Your task to perform on an android device: make emails show in primary in the gmail app Image 0: 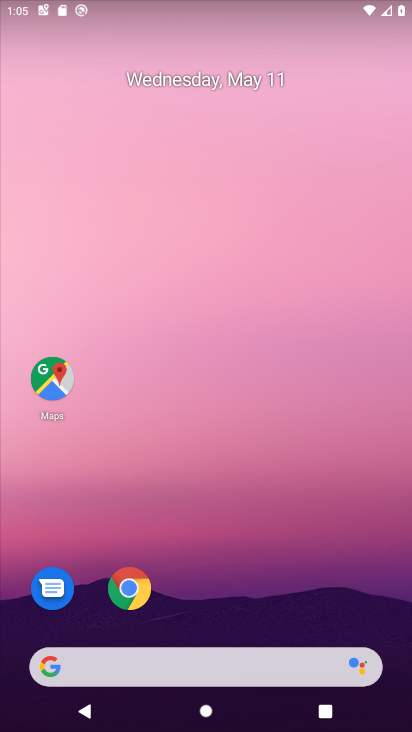
Step 0: press home button
Your task to perform on an android device: make emails show in primary in the gmail app Image 1: 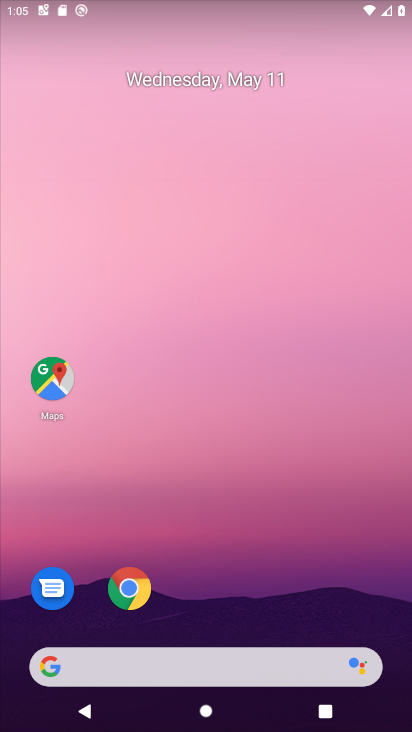
Step 1: drag from (184, 653) to (226, 404)
Your task to perform on an android device: make emails show in primary in the gmail app Image 2: 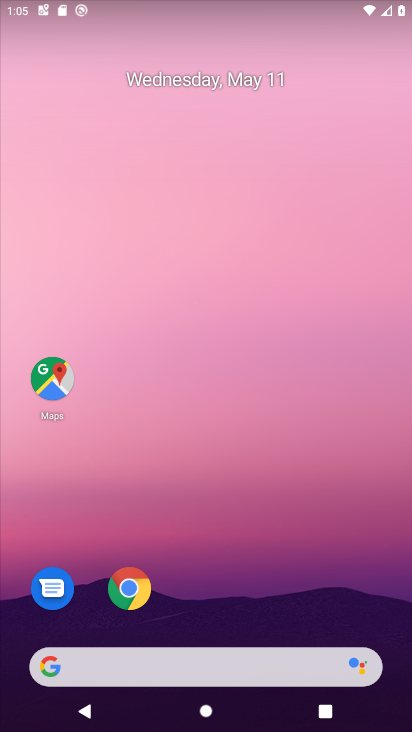
Step 2: drag from (264, 569) to (303, 254)
Your task to perform on an android device: make emails show in primary in the gmail app Image 3: 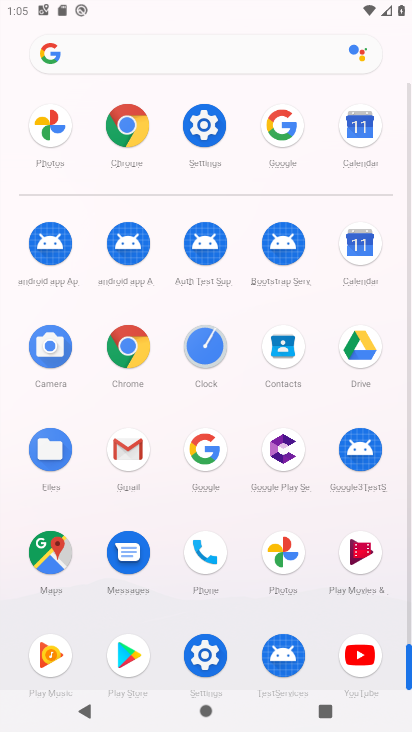
Step 3: click (128, 450)
Your task to perform on an android device: make emails show in primary in the gmail app Image 4: 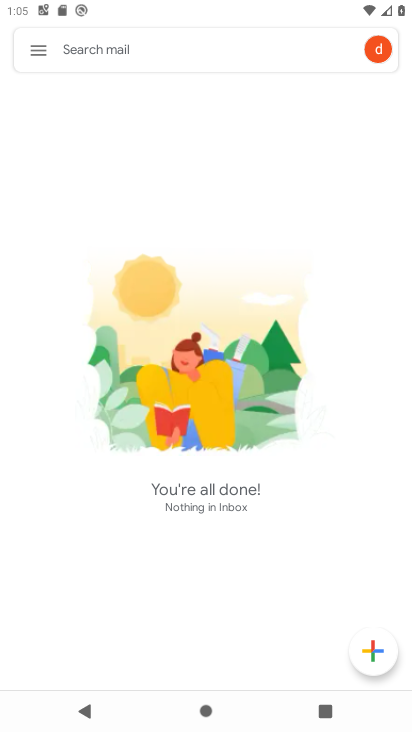
Step 4: click (43, 53)
Your task to perform on an android device: make emails show in primary in the gmail app Image 5: 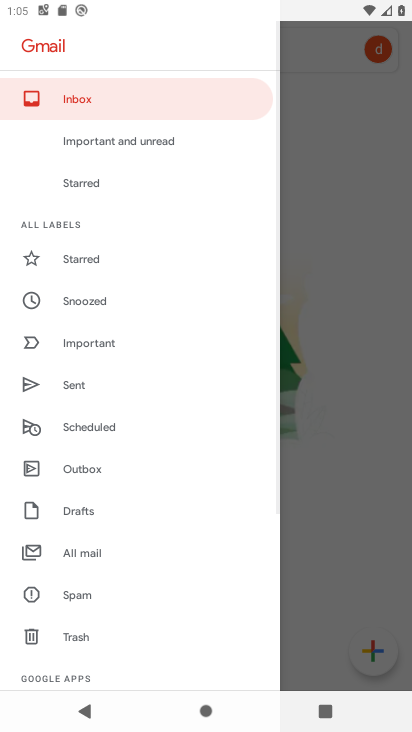
Step 5: drag from (93, 644) to (135, 308)
Your task to perform on an android device: make emails show in primary in the gmail app Image 6: 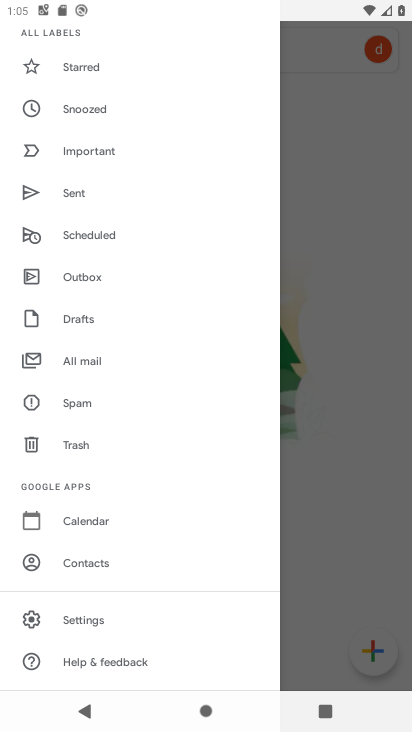
Step 6: click (91, 624)
Your task to perform on an android device: make emails show in primary in the gmail app Image 7: 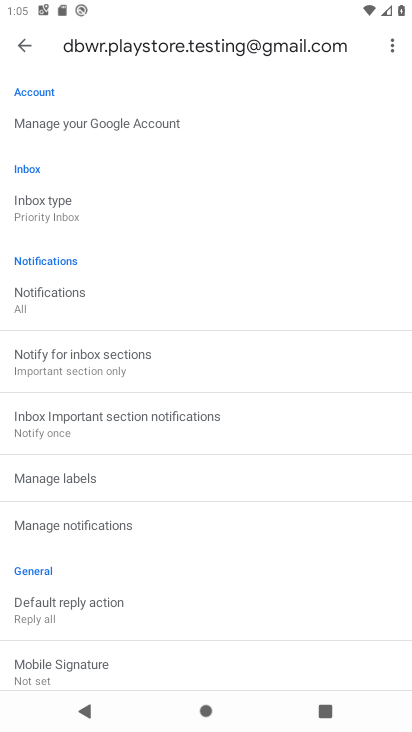
Step 7: click (57, 212)
Your task to perform on an android device: make emails show in primary in the gmail app Image 8: 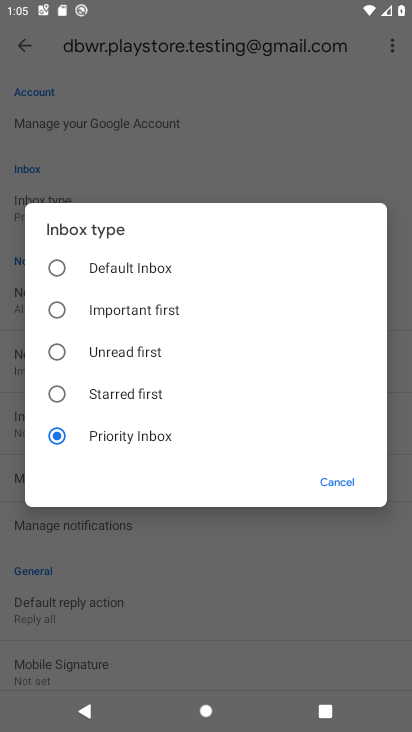
Step 8: click (93, 272)
Your task to perform on an android device: make emails show in primary in the gmail app Image 9: 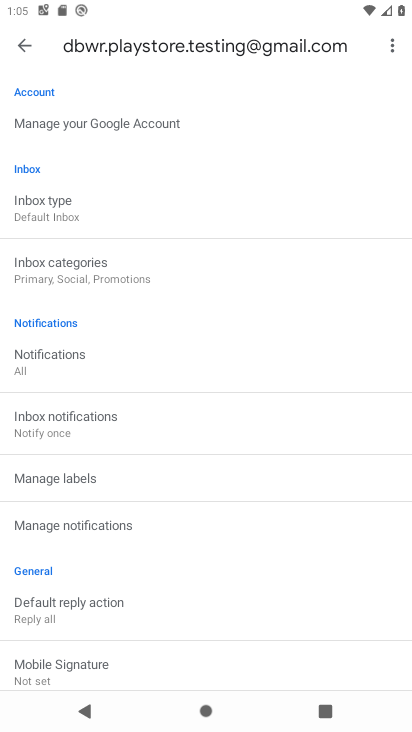
Step 9: click (47, 266)
Your task to perform on an android device: make emails show in primary in the gmail app Image 10: 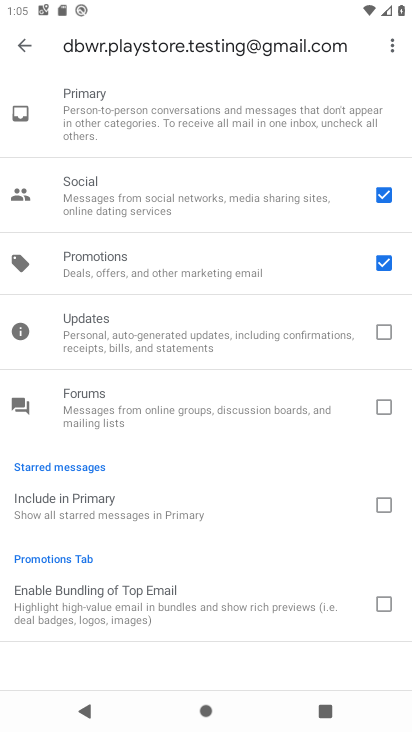
Step 10: click (386, 267)
Your task to perform on an android device: make emails show in primary in the gmail app Image 11: 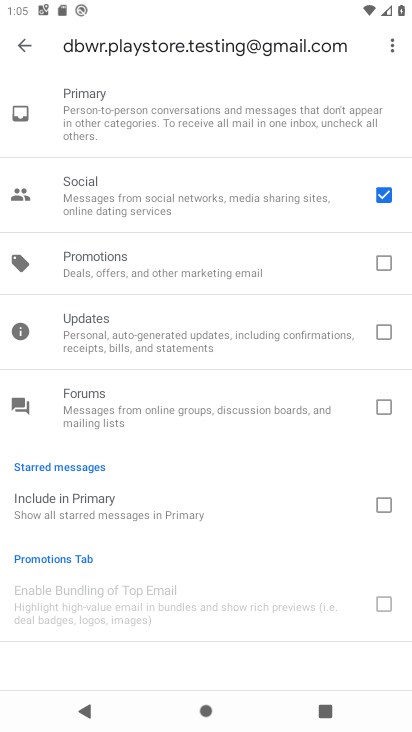
Step 11: click (391, 189)
Your task to perform on an android device: make emails show in primary in the gmail app Image 12: 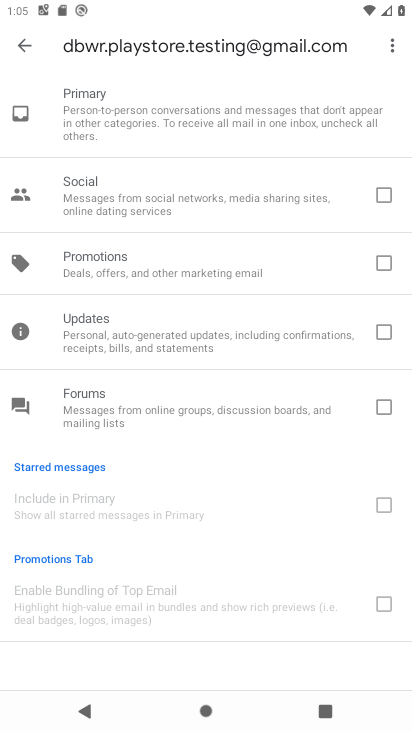
Step 12: click (29, 41)
Your task to perform on an android device: make emails show in primary in the gmail app Image 13: 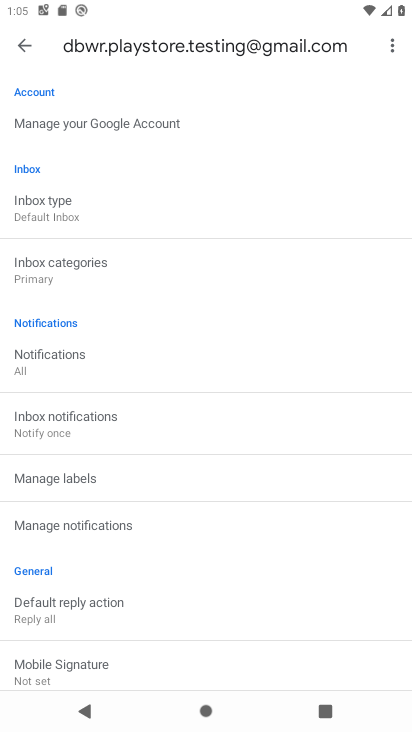
Step 13: task complete